Your task to perform on an android device: When is my next meeting? Image 0: 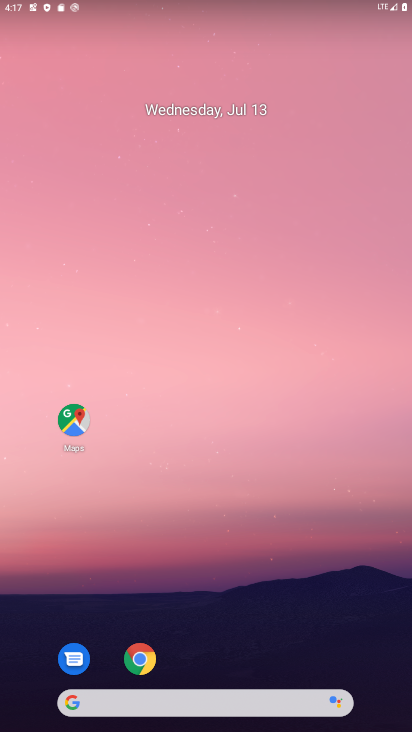
Step 0: drag from (221, 660) to (228, 124)
Your task to perform on an android device: When is my next meeting? Image 1: 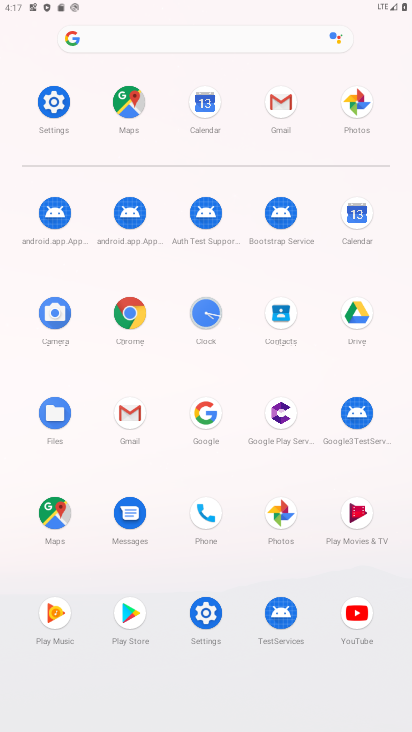
Step 1: click (352, 216)
Your task to perform on an android device: When is my next meeting? Image 2: 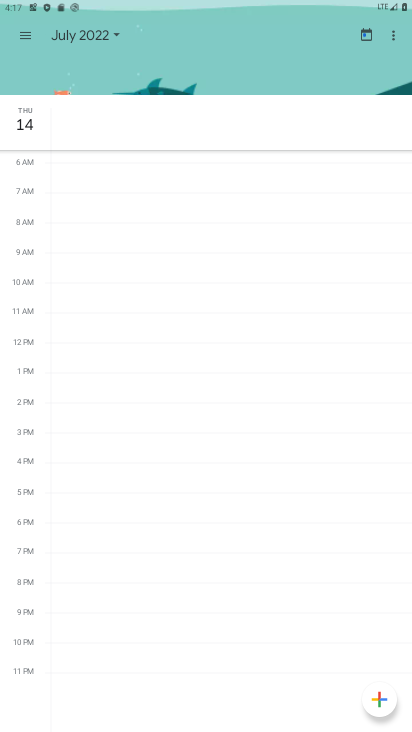
Step 2: click (116, 34)
Your task to perform on an android device: When is my next meeting? Image 3: 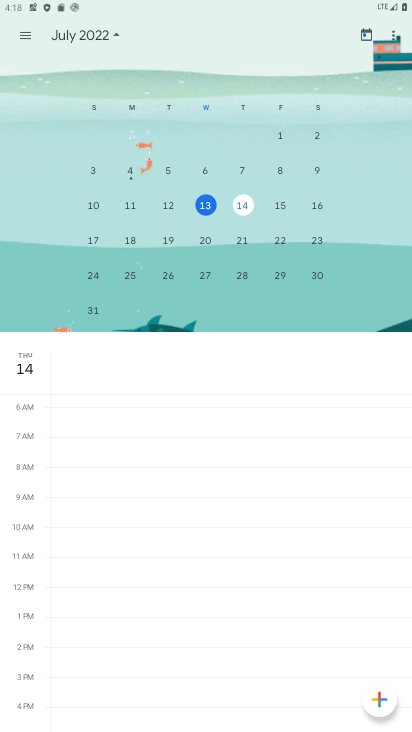
Step 3: click (21, 33)
Your task to perform on an android device: When is my next meeting? Image 4: 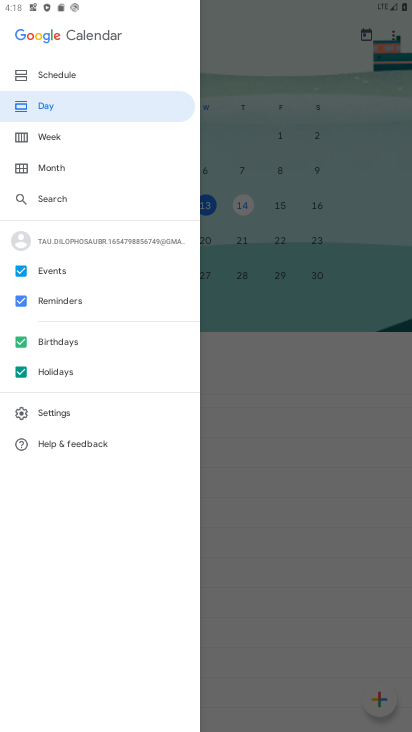
Step 4: click (58, 138)
Your task to perform on an android device: When is my next meeting? Image 5: 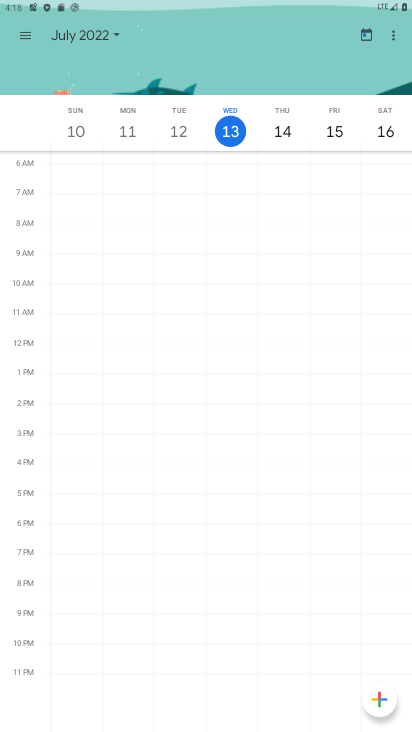
Step 5: task complete